Your task to perform on an android device: Search for acer nitro on bestbuy, select the first entry, add it to the cart, then select checkout. Image 0: 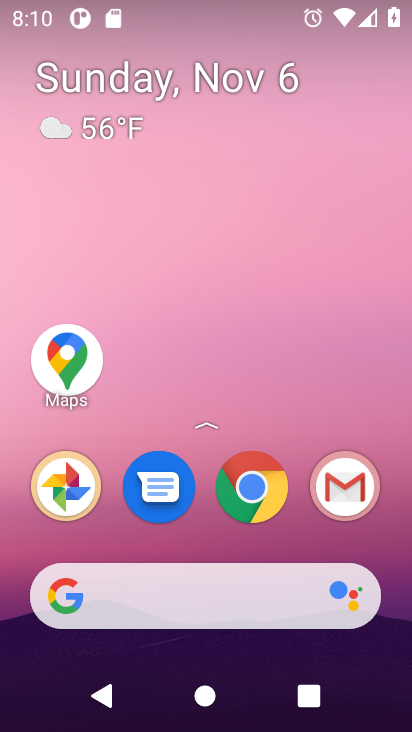
Step 0: click (270, 478)
Your task to perform on an android device: Search for acer nitro on bestbuy, select the first entry, add it to the cart, then select checkout. Image 1: 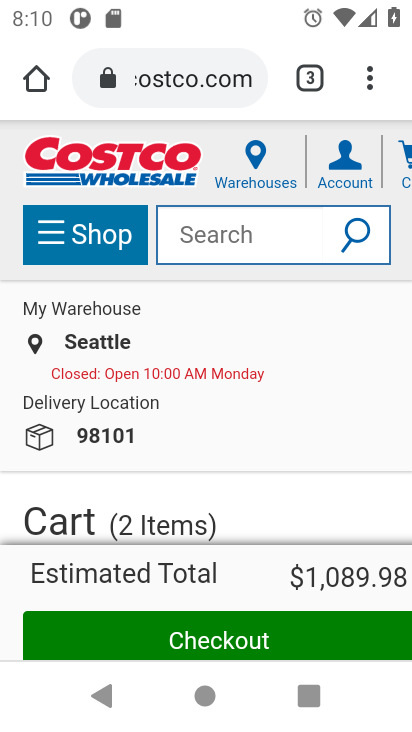
Step 1: click (153, 73)
Your task to perform on an android device: Search for acer nitro on bestbuy, select the first entry, add it to the cart, then select checkout. Image 2: 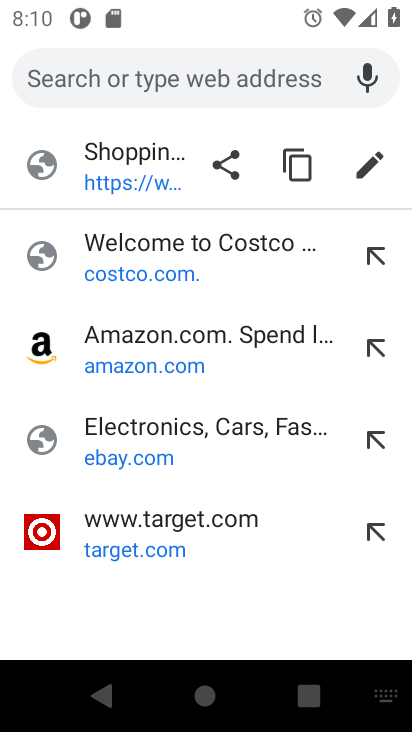
Step 2: type "bestbuy"
Your task to perform on an android device: Search for acer nitro on bestbuy, select the first entry, add it to the cart, then select checkout. Image 3: 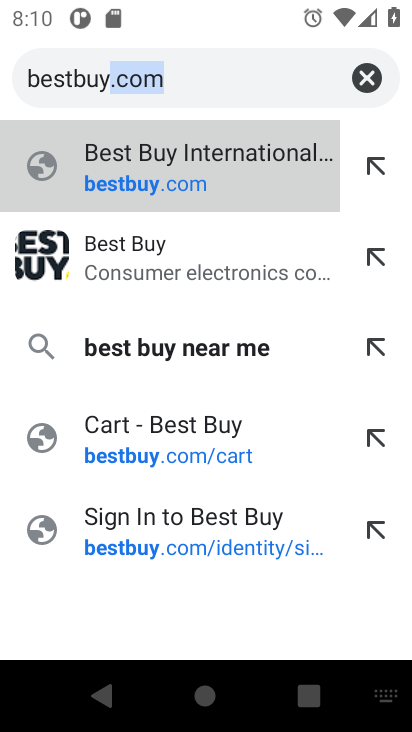
Step 3: click (134, 187)
Your task to perform on an android device: Search for acer nitro on bestbuy, select the first entry, add it to the cart, then select checkout. Image 4: 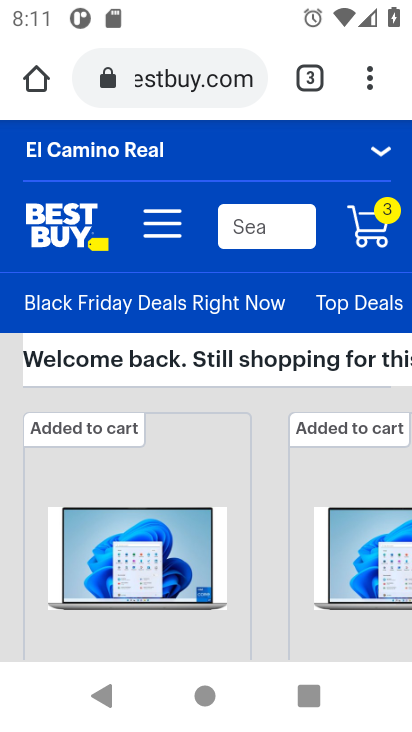
Step 4: click (236, 231)
Your task to perform on an android device: Search for acer nitro on bestbuy, select the first entry, add it to the cart, then select checkout. Image 5: 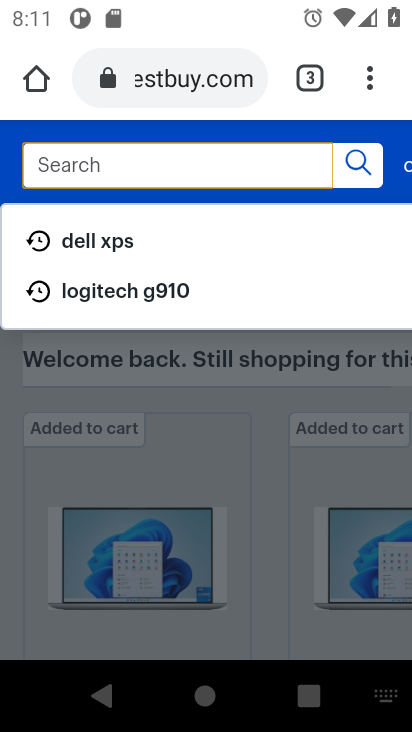
Step 5: type "acer nitro"
Your task to perform on an android device: Search for acer nitro on bestbuy, select the first entry, add it to the cart, then select checkout. Image 6: 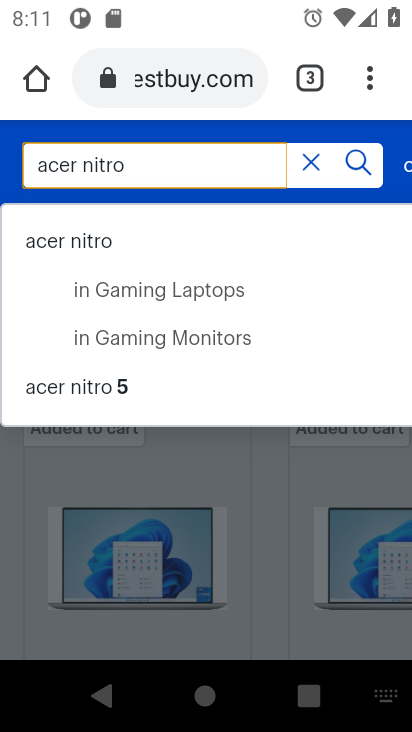
Step 6: click (362, 172)
Your task to perform on an android device: Search for acer nitro on bestbuy, select the first entry, add it to the cart, then select checkout. Image 7: 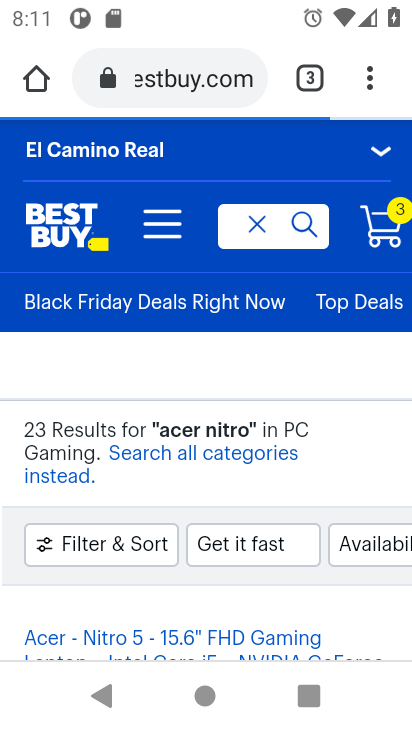
Step 7: drag from (62, 607) to (293, 89)
Your task to perform on an android device: Search for acer nitro on bestbuy, select the first entry, add it to the cart, then select checkout. Image 8: 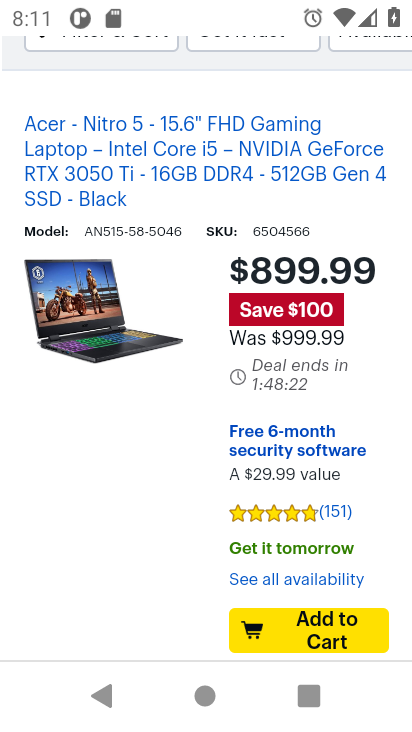
Step 8: click (323, 620)
Your task to perform on an android device: Search for acer nitro on bestbuy, select the first entry, add it to the cart, then select checkout. Image 9: 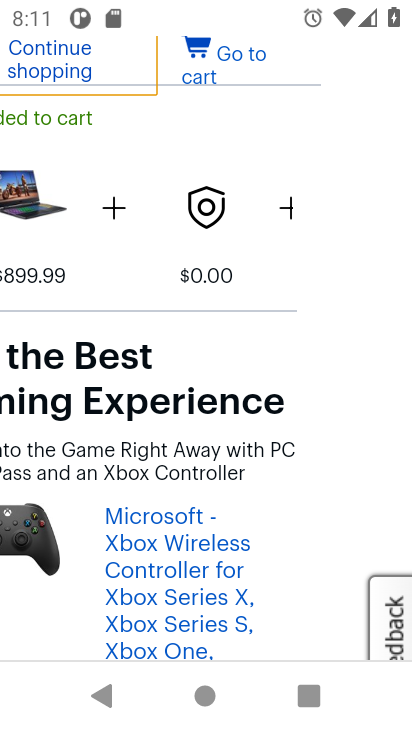
Step 9: click (227, 52)
Your task to perform on an android device: Search for acer nitro on bestbuy, select the first entry, add it to the cart, then select checkout. Image 10: 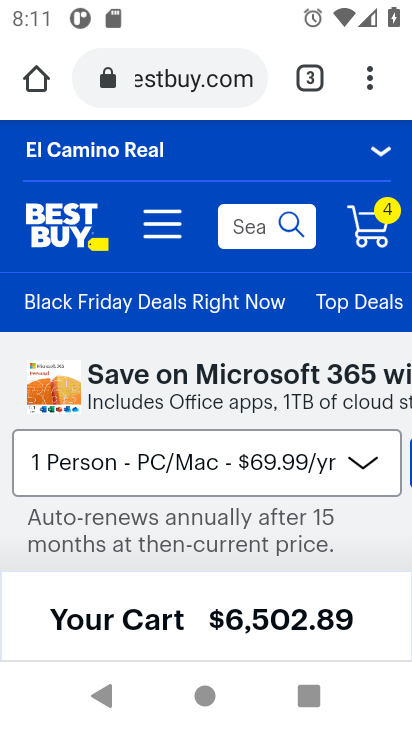
Step 10: drag from (183, 572) to (269, 76)
Your task to perform on an android device: Search for acer nitro on bestbuy, select the first entry, add it to the cart, then select checkout. Image 11: 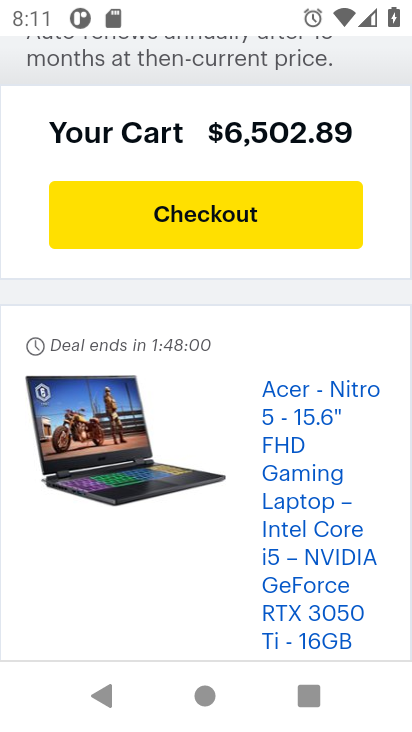
Step 11: click (208, 208)
Your task to perform on an android device: Search for acer nitro on bestbuy, select the first entry, add it to the cart, then select checkout. Image 12: 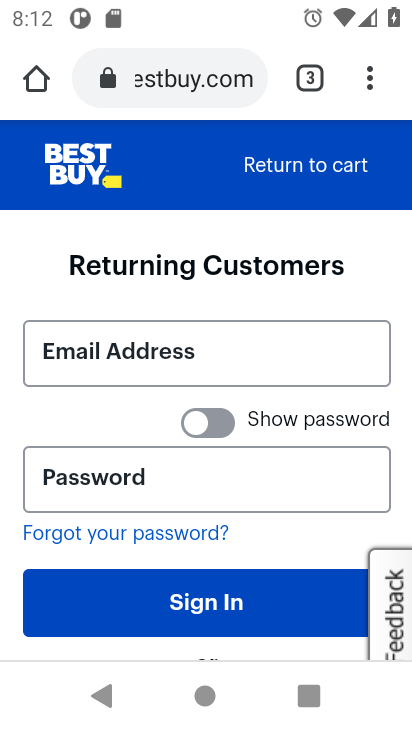
Step 12: task complete